Your task to perform on an android device: toggle javascript in the chrome app Image 0: 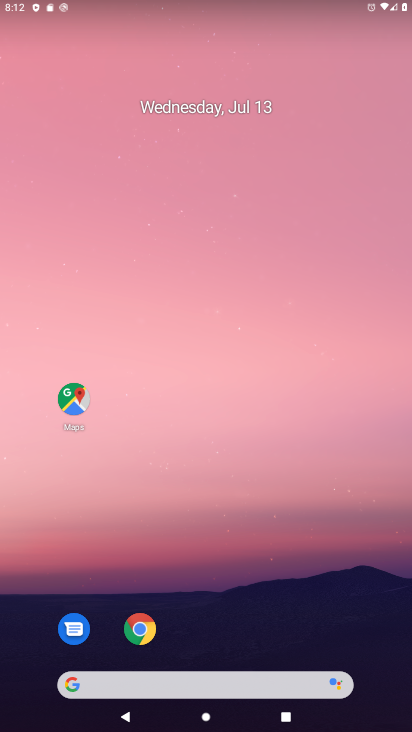
Step 0: drag from (284, 23) to (206, 8)
Your task to perform on an android device: toggle javascript in the chrome app Image 1: 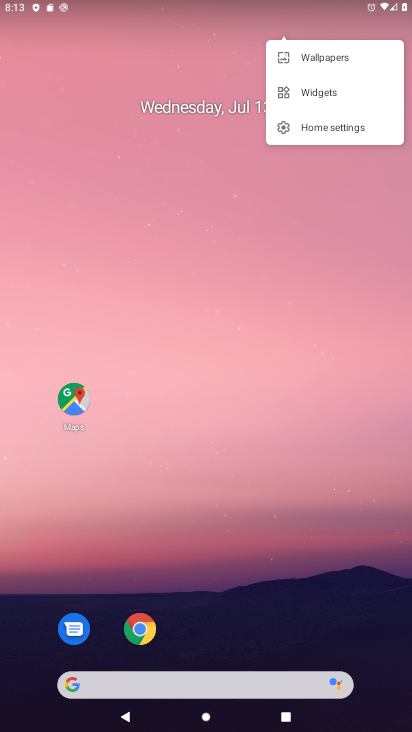
Step 1: drag from (219, 465) to (244, 5)
Your task to perform on an android device: toggle javascript in the chrome app Image 2: 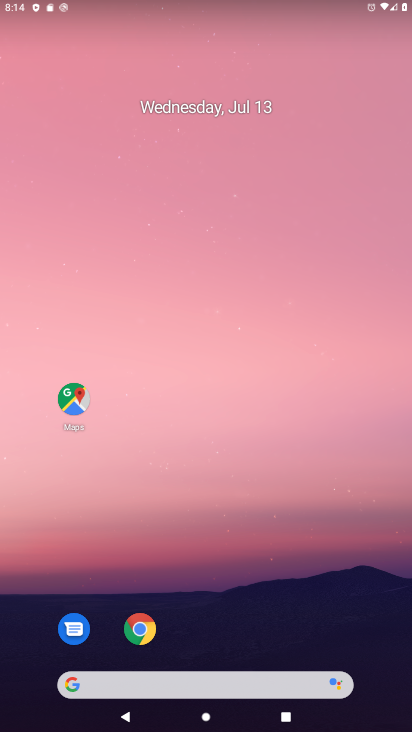
Step 2: drag from (247, 631) to (250, 48)
Your task to perform on an android device: toggle javascript in the chrome app Image 3: 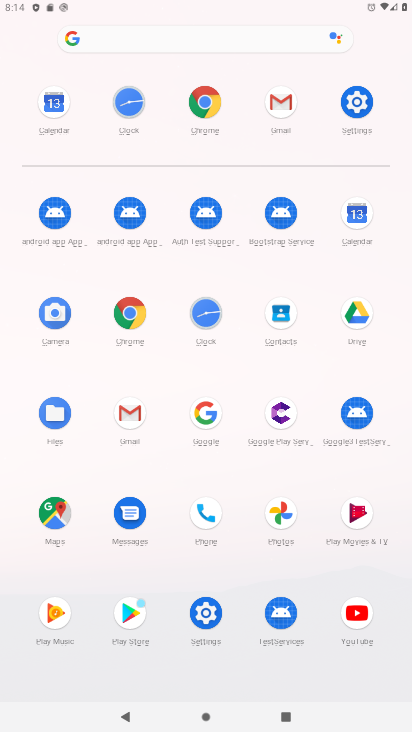
Step 3: click (191, 98)
Your task to perform on an android device: toggle javascript in the chrome app Image 4: 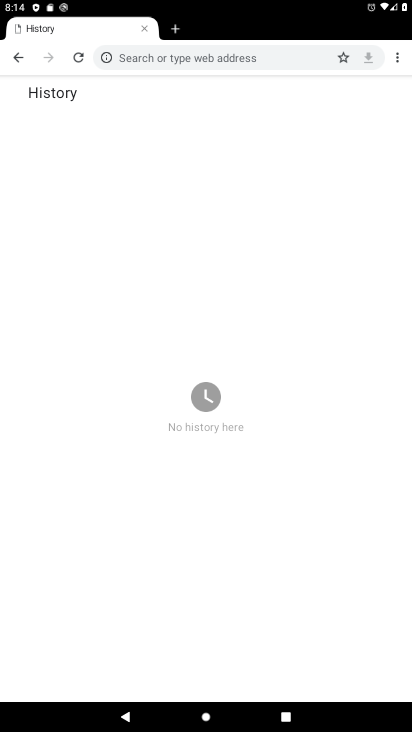
Step 4: click (24, 61)
Your task to perform on an android device: toggle javascript in the chrome app Image 5: 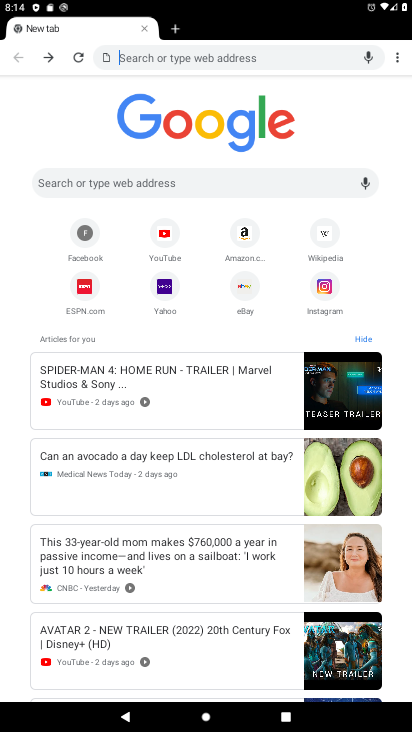
Step 5: drag from (398, 58) to (309, 257)
Your task to perform on an android device: toggle javascript in the chrome app Image 6: 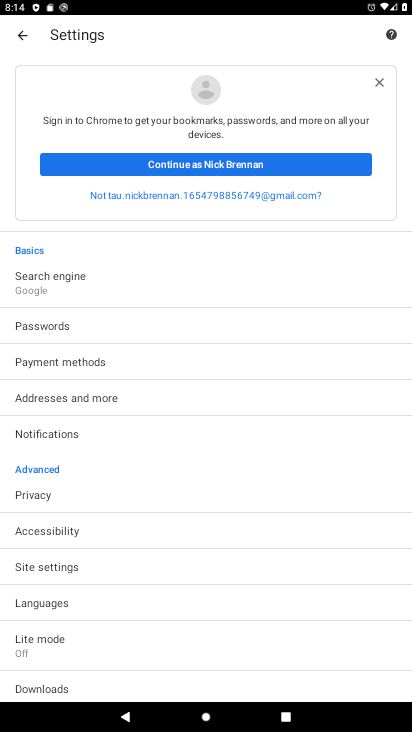
Step 6: click (48, 567)
Your task to perform on an android device: toggle javascript in the chrome app Image 7: 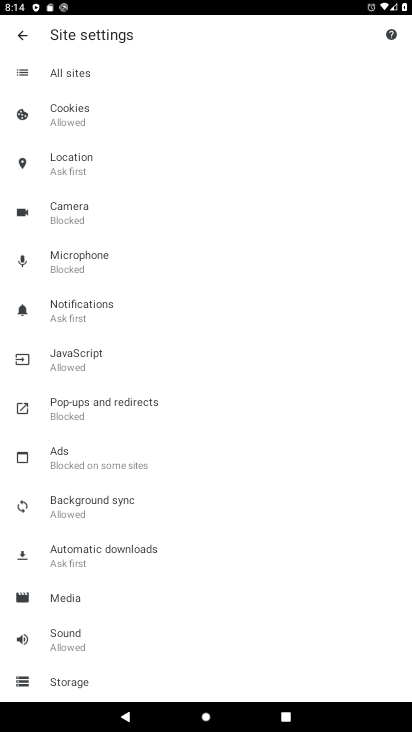
Step 7: click (61, 368)
Your task to perform on an android device: toggle javascript in the chrome app Image 8: 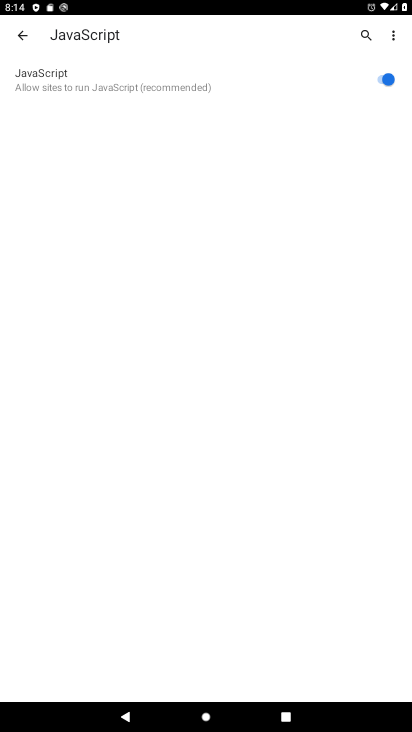
Step 8: click (386, 87)
Your task to perform on an android device: toggle javascript in the chrome app Image 9: 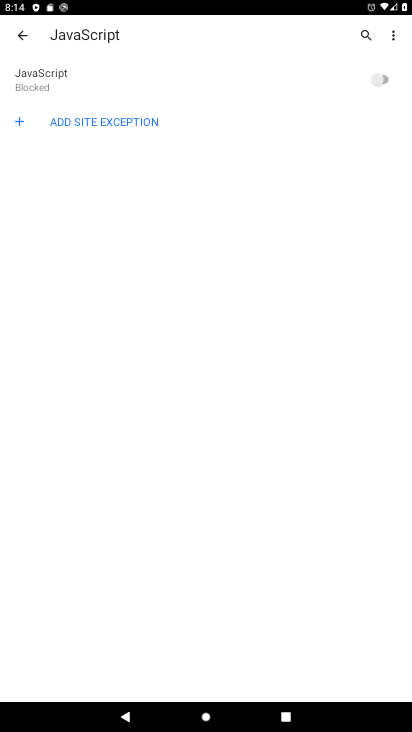
Step 9: task complete